Your task to perform on an android device: turn on notifications settings in the gmail app Image 0: 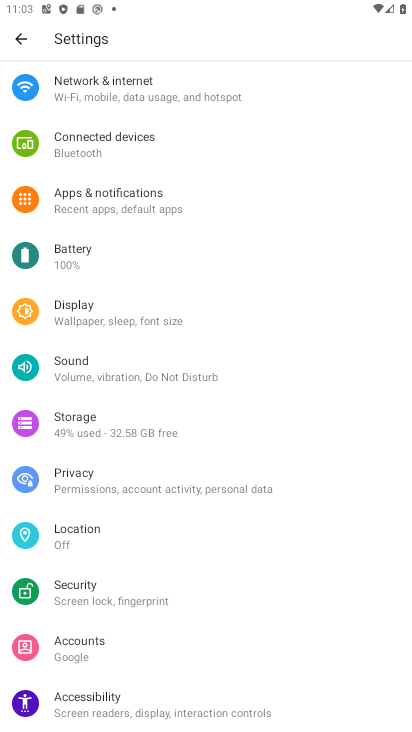
Step 0: click (177, 197)
Your task to perform on an android device: turn on notifications settings in the gmail app Image 1: 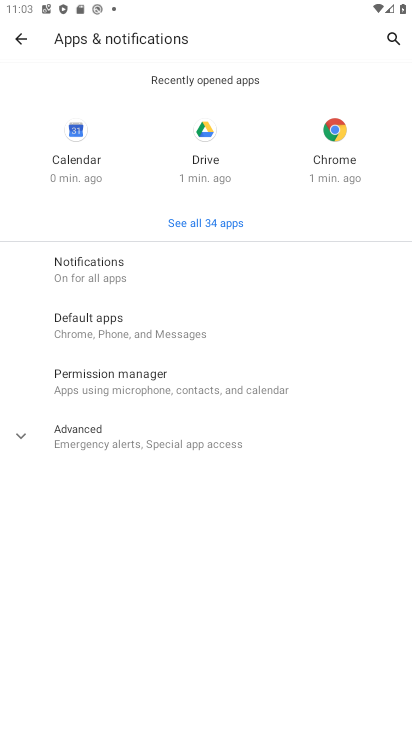
Step 1: press home button
Your task to perform on an android device: turn on notifications settings in the gmail app Image 2: 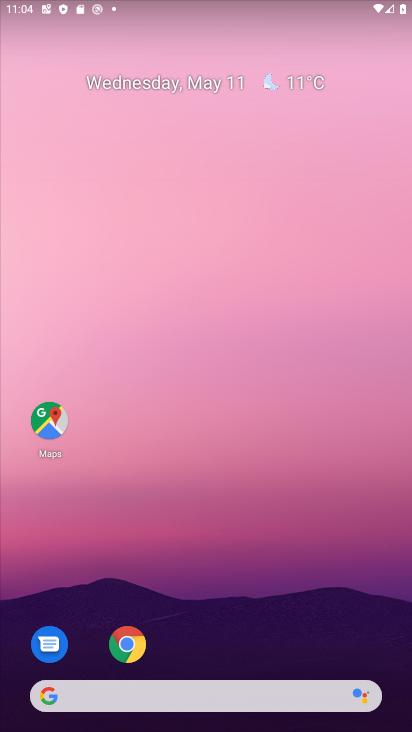
Step 2: drag from (210, 658) to (202, 36)
Your task to perform on an android device: turn on notifications settings in the gmail app Image 3: 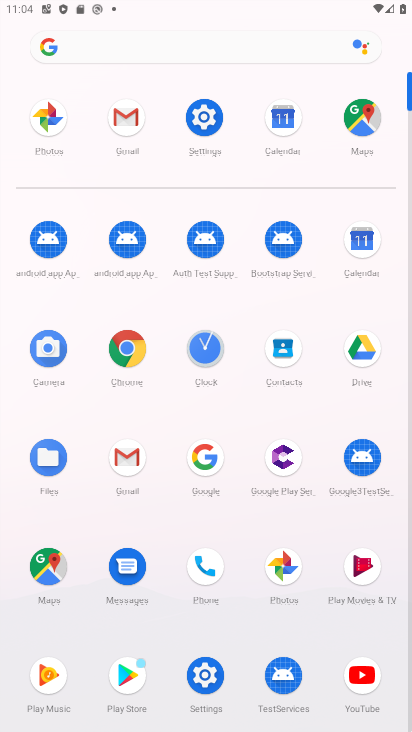
Step 3: click (125, 453)
Your task to perform on an android device: turn on notifications settings in the gmail app Image 4: 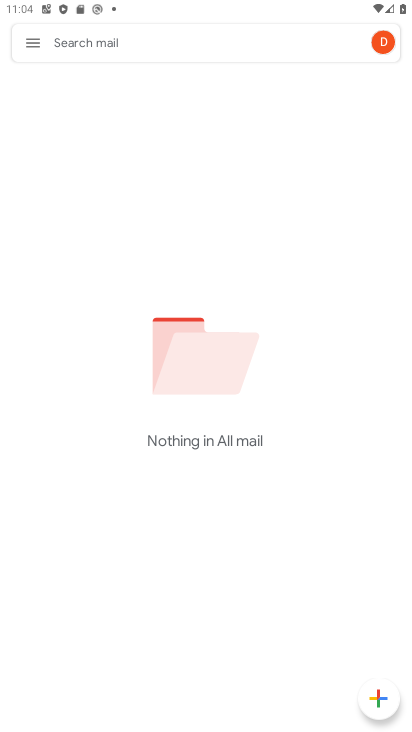
Step 4: click (27, 36)
Your task to perform on an android device: turn on notifications settings in the gmail app Image 5: 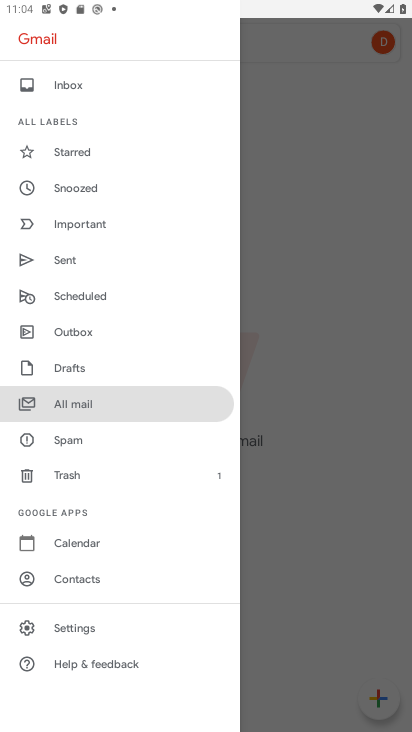
Step 5: click (103, 626)
Your task to perform on an android device: turn on notifications settings in the gmail app Image 6: 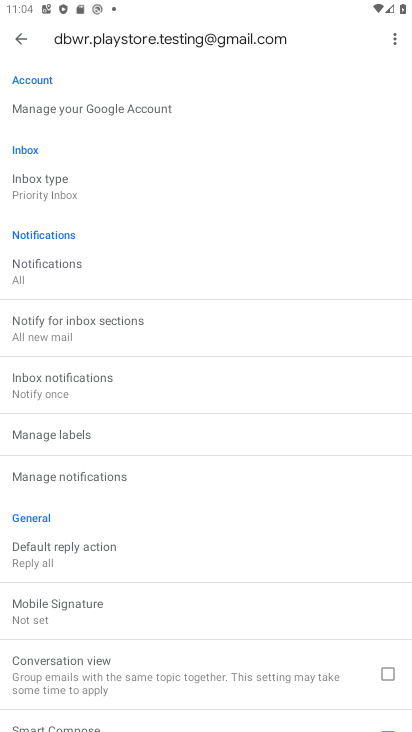
Step 6: click (26, 34)
Your task to perform on an android device: turn on notifications settings in the gmail app Image 7: 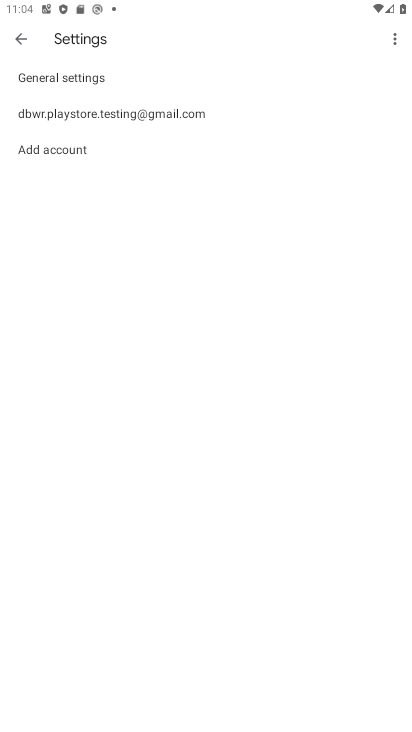
Step 7: click (107, 78)
Your task to perform on an android device: turn on notifications settings in the gmail app Image 8: 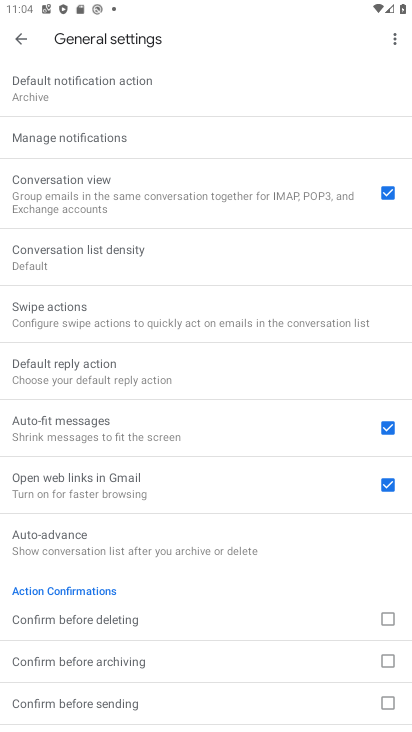
Step 8: click (134, 136)
Your task to perform on an android device: turn on notifications settings in the gmail app Image 9: 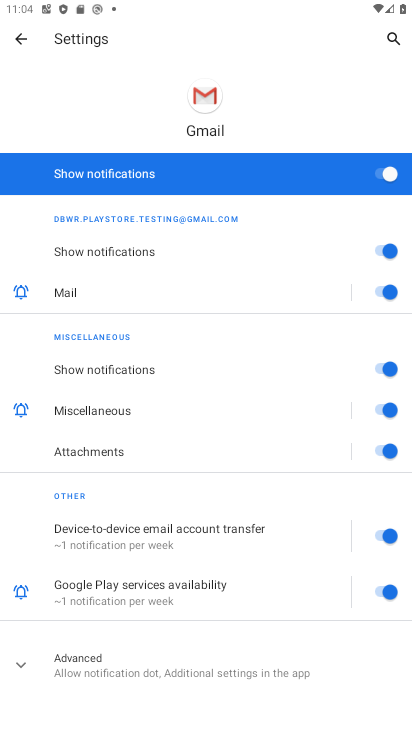
Step 9: task complete